Your task to perform on an android device: open app "ZOOM Cloud Meetings" (install if not already installed) Image 0: 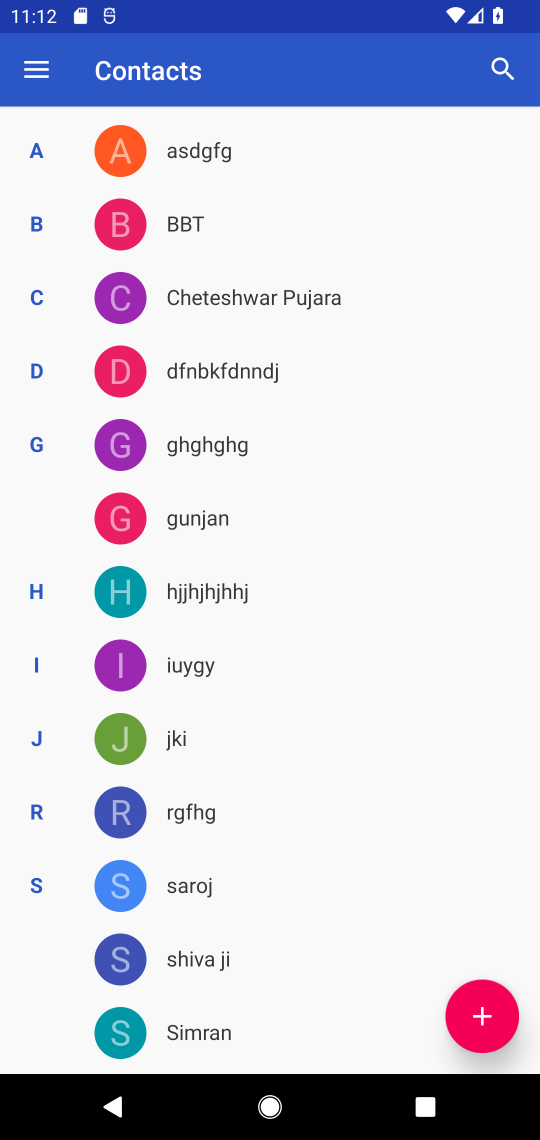
Step 0: press home button
Your task to perform on an android device: open app "ZOOM Cloud Meetings" (install if not already installed) Image 1: 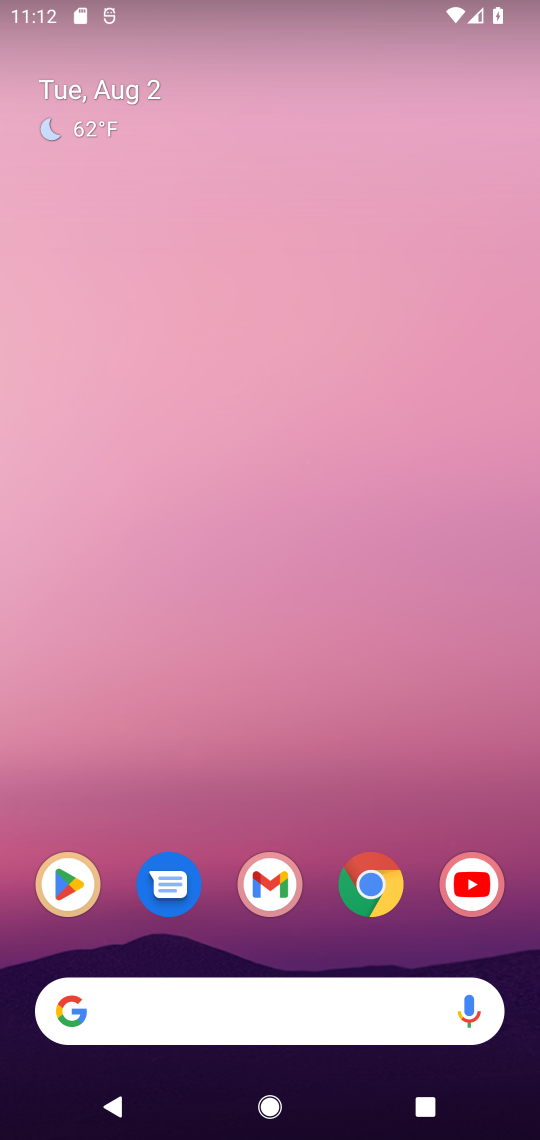
Step 1: click (53, 880)
Your task to perform on an android device: open app "ZOOM Cloud Meetings" (install if not already installed) Image 2: 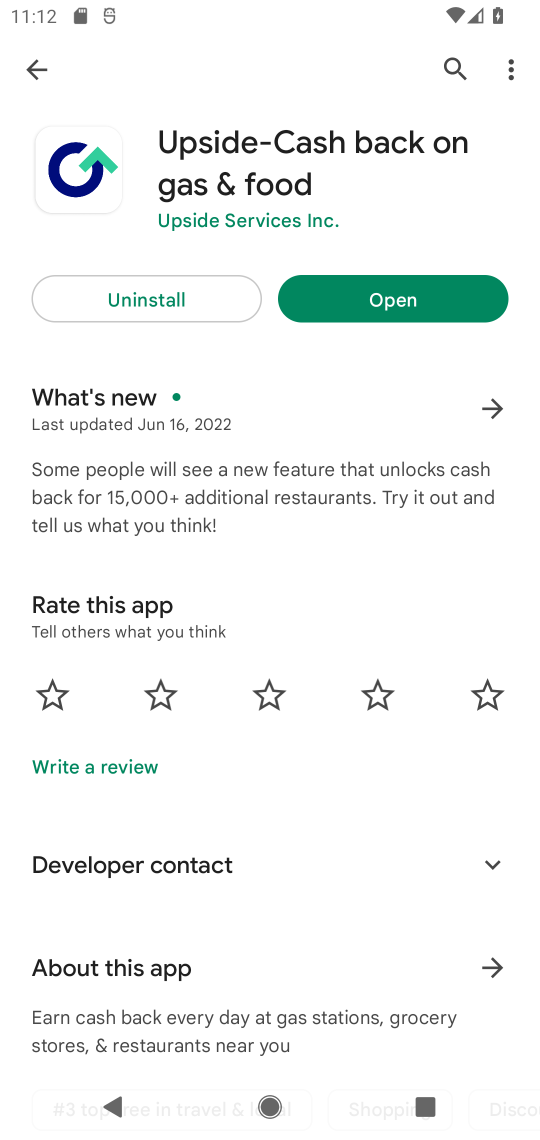
Step 2: click (30, 60)
Your task to perform on an android device: open app "ZOOM Cloud Meetings" (install if not already installed) Image 3: 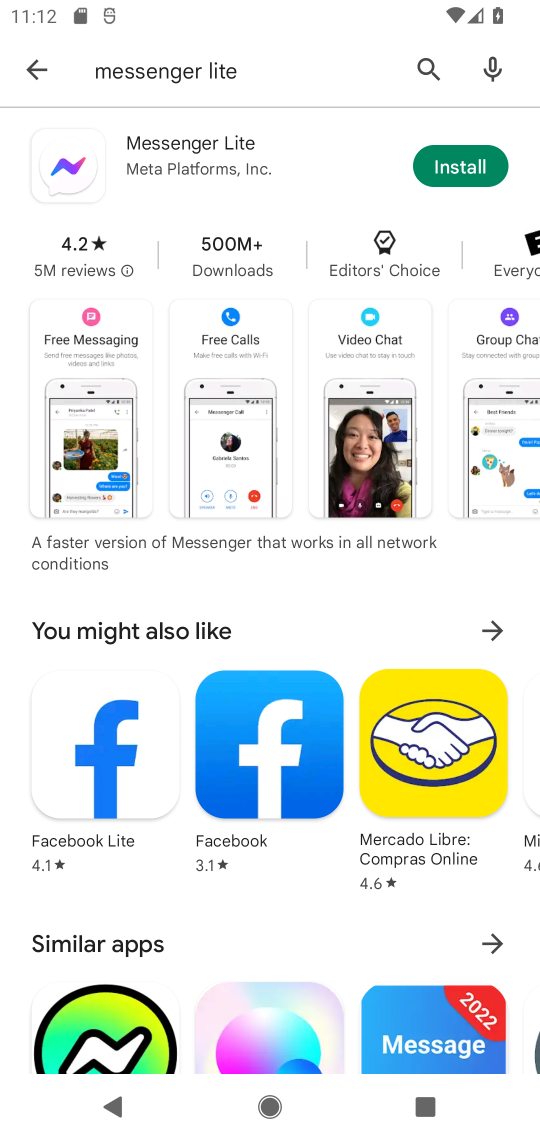
Step 3: click (266, 69)
Your task to perform on an android device: open app "ZOOM Cloud Meetings" (install if not already installed) Image 4: 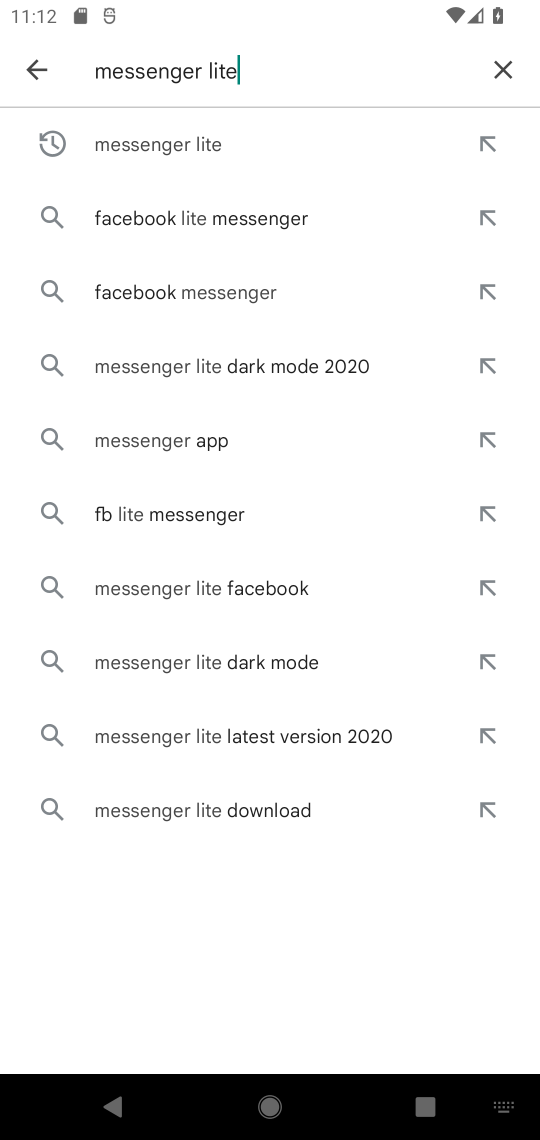
Step 4: click (509, 71)
Your task to perform on an android device: open app "ZOOM Cloud Meetings" (install if not already installed) Image 5: 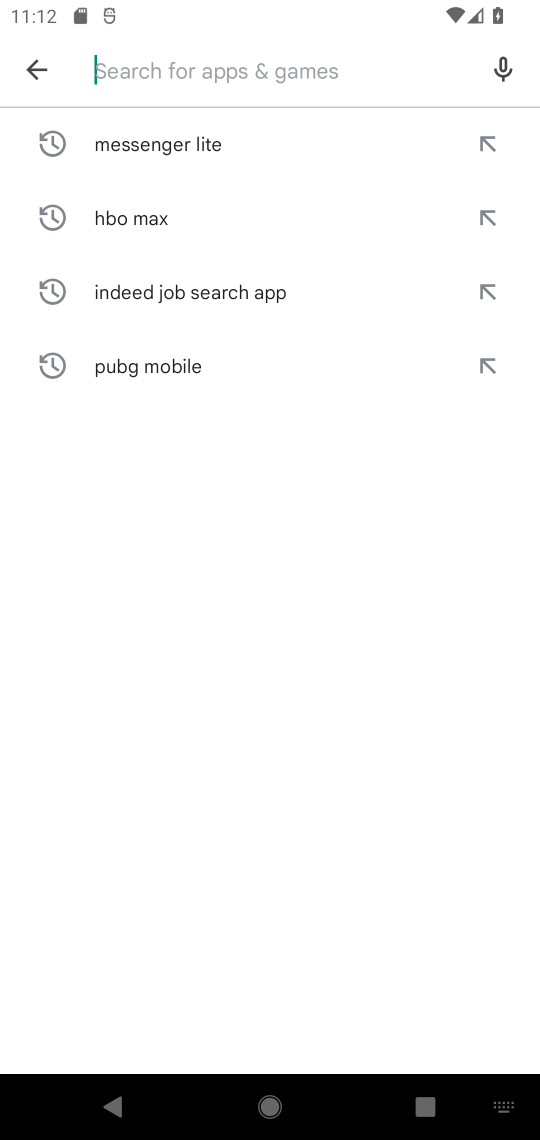
Step 5: type "zoom cloud"
Your task to perform on an android device: open app "ZOOM Cloud Meetings" (install if not already installed) Image 6: 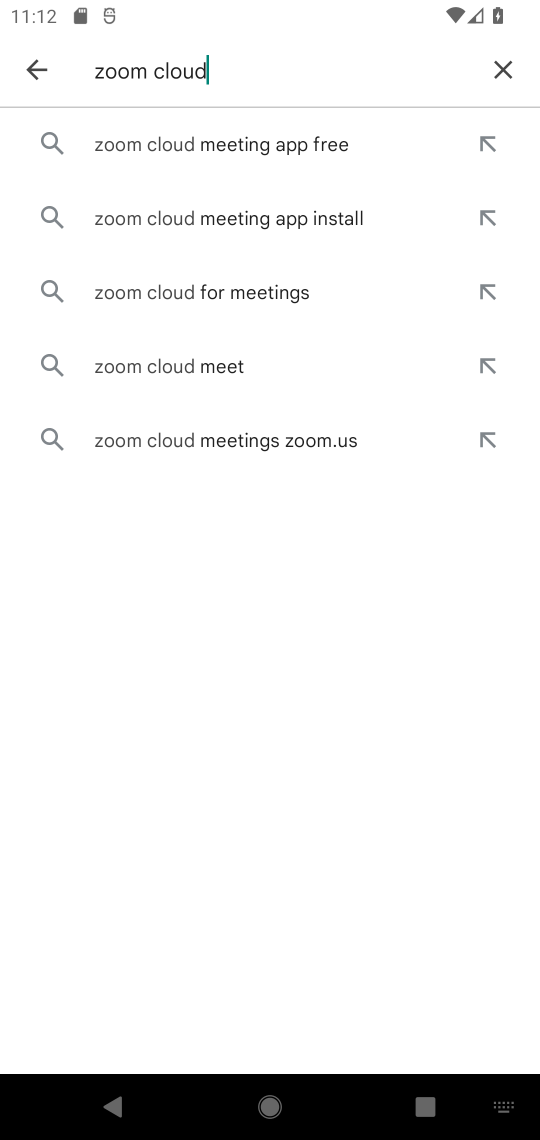
Step 6: click (171, 145)
Your task to perform on an android device: open app "ZOOM Cloud Meetings" (install if not already installed) Image 7: 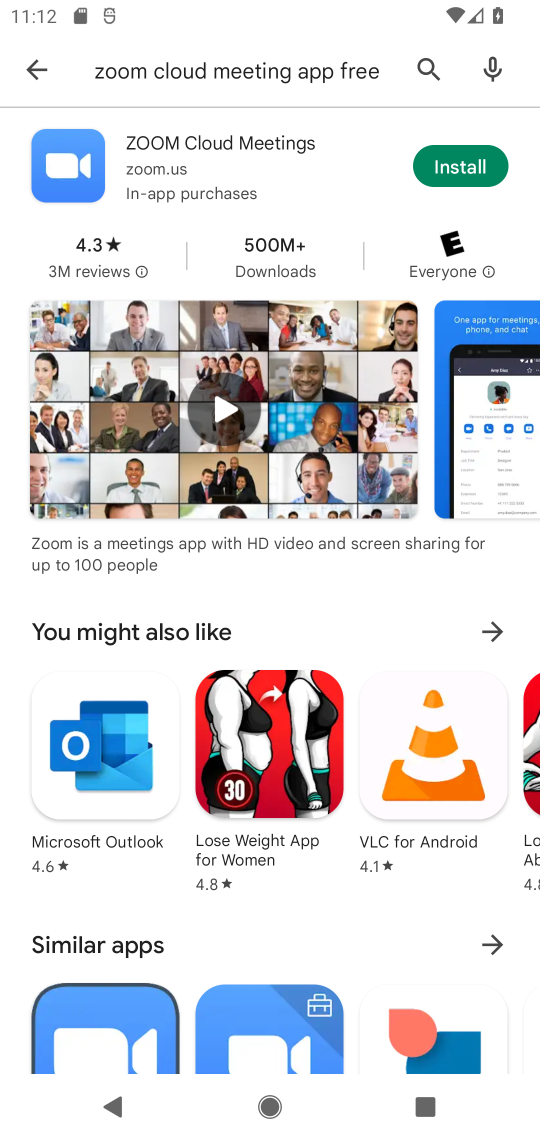
Step 7: click (467, 168)
Your task to perform on an android device: open app "ZOOM Cloud Meetings" (install if not already installed) Image 8: 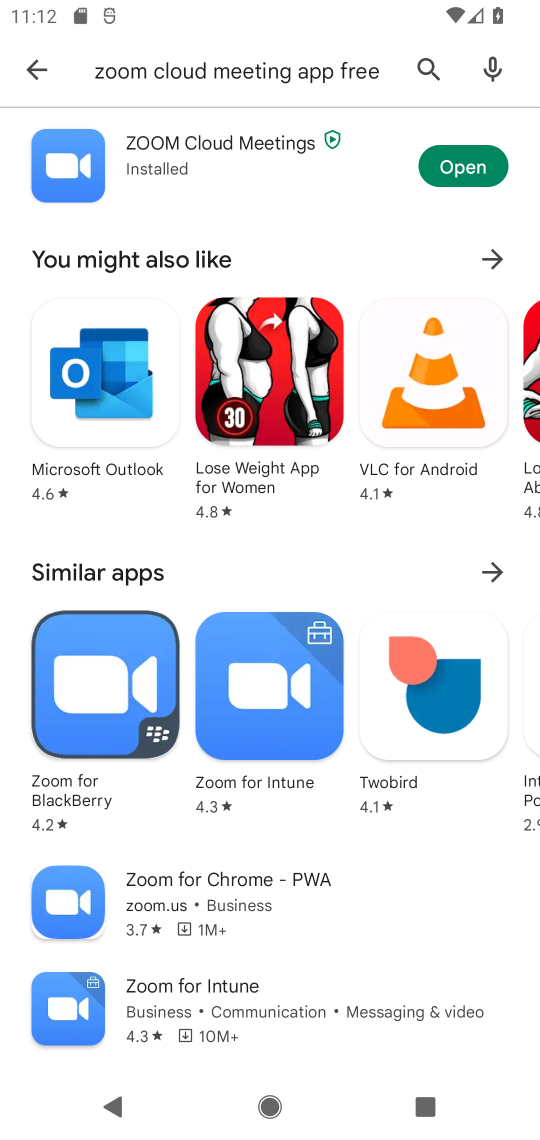
Step 8: click (479, 163)
Your task to perform on an android device: open app "ZOOM Cloud Meetings" (install if not already installed) Image 9: 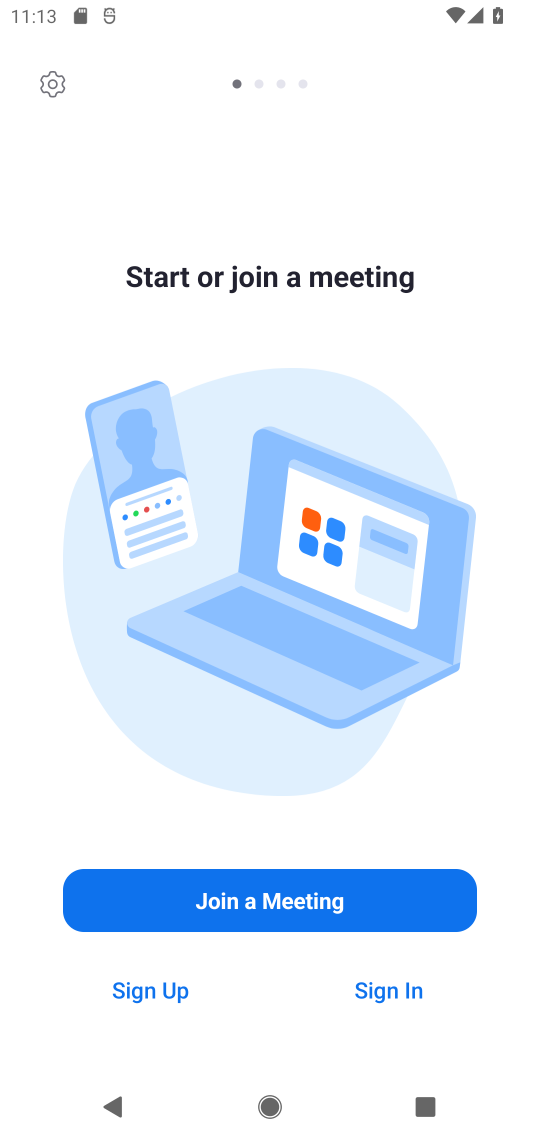
Step 9: task complete